Your task to perform on an android device: open a new tab in the chrome app Image 0: 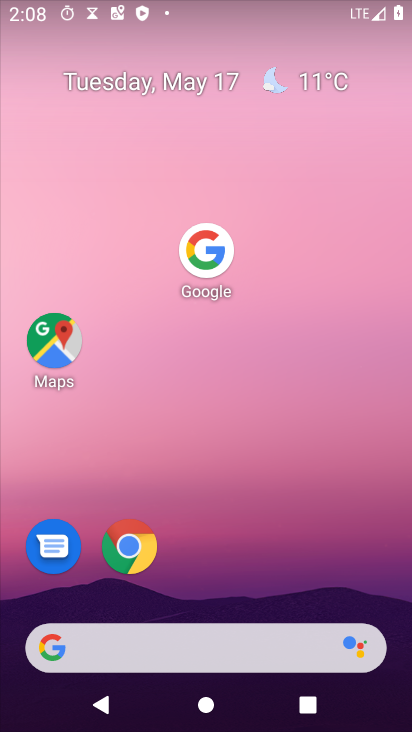
Step 0: press home button
Your task to perform on an android device: open a new tab in the chrome app Image 1: 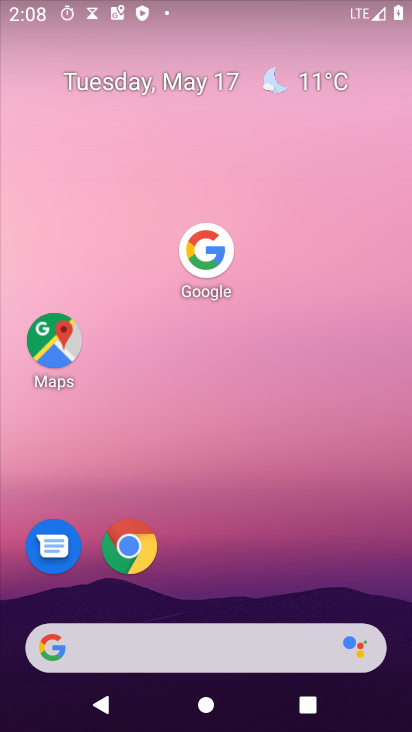
Step 1: click (137, 557)
Your task to perform on an android device: open a new tab in the chrome app Image 2: 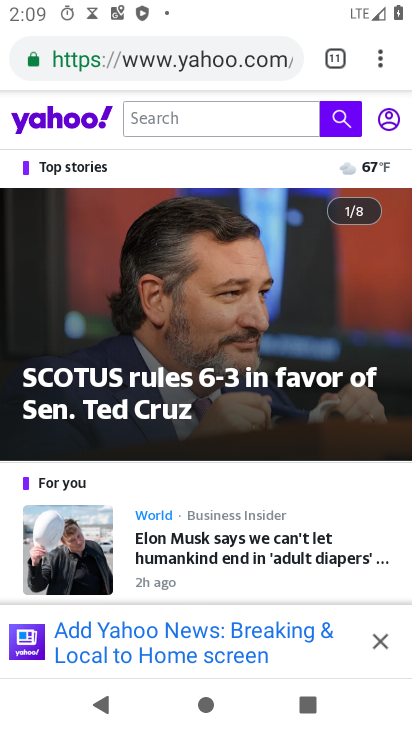
Step 2: task complete